Your task to perform on an android device: Go to Amazon Image 0: 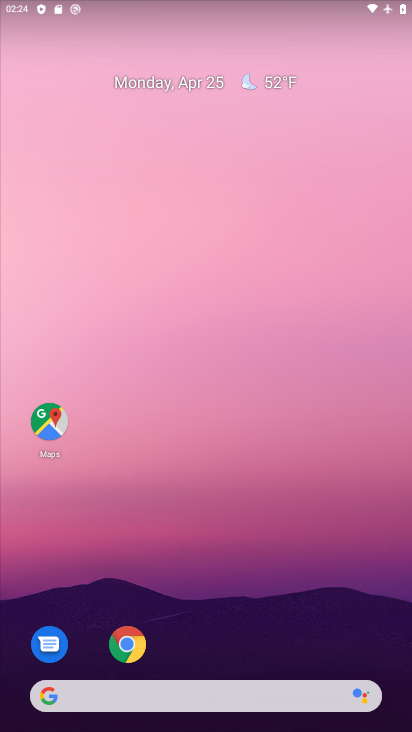
Step 0: drag from (279, 625) to (274, 23)
Your task to perform on an android device: Go to Amazon Image 1: 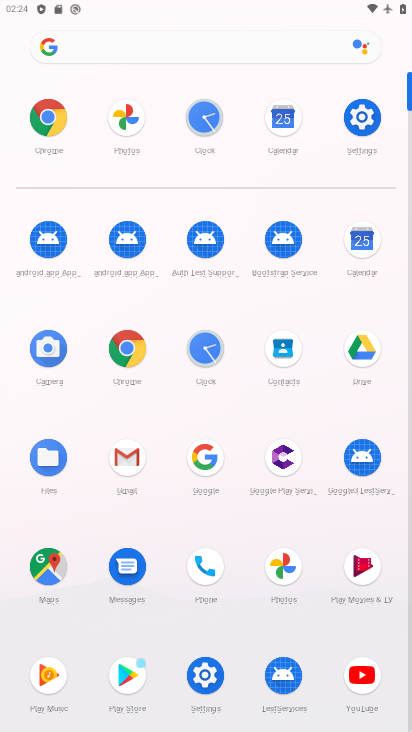
Step 1: click (37, 115)
Your task to perform on an android device: Go to Amazon Image 2: 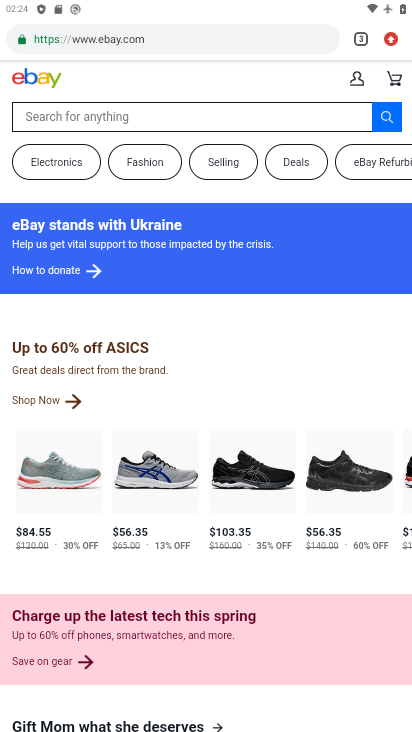
Step 2: click (356, 39)
Your task to perform on an android device: Go to Amazon Image 3: 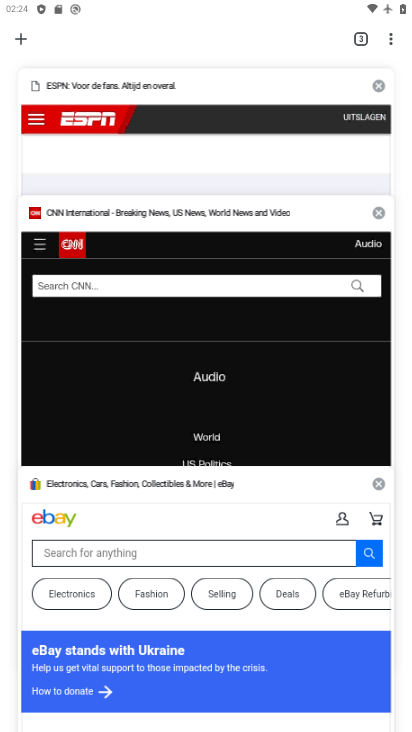
Step 3: click (30, 42)
Your task to perform on an android device: Go to Amazon Image 4: 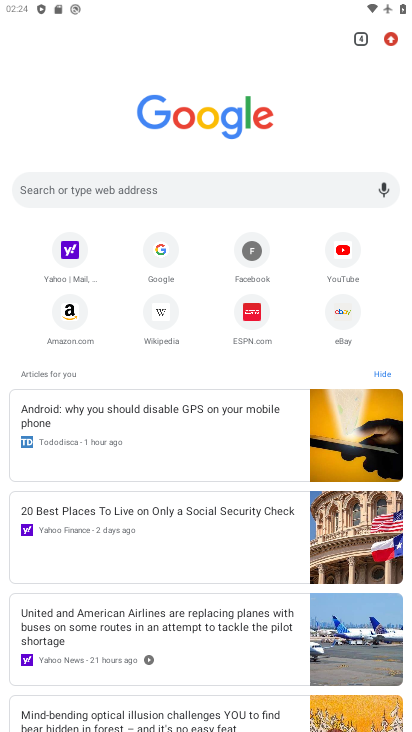
Step 4: click (72, 319)
Your task to perform on an android device: Go to Amazon Image 5: 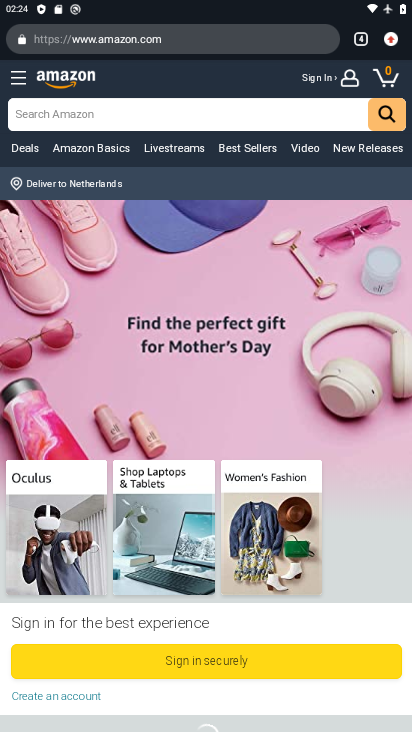
Step 5: task complete